Your task to perform on an android device: Go to Wikipedia Image 0: 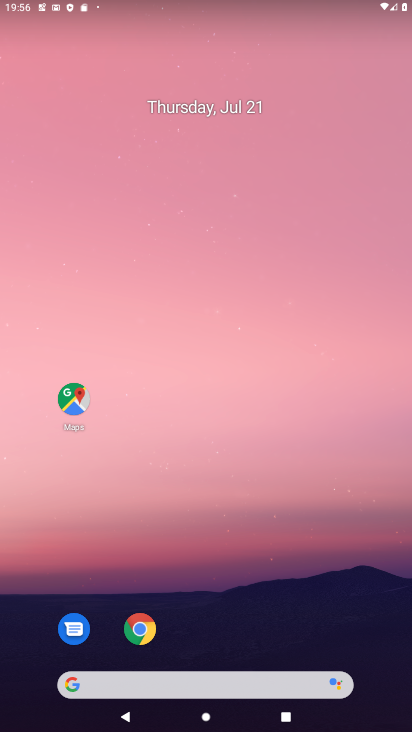
Step 0: click (153, 623)
Your task to perform on an android device: Go to Wikipedia Image 1: 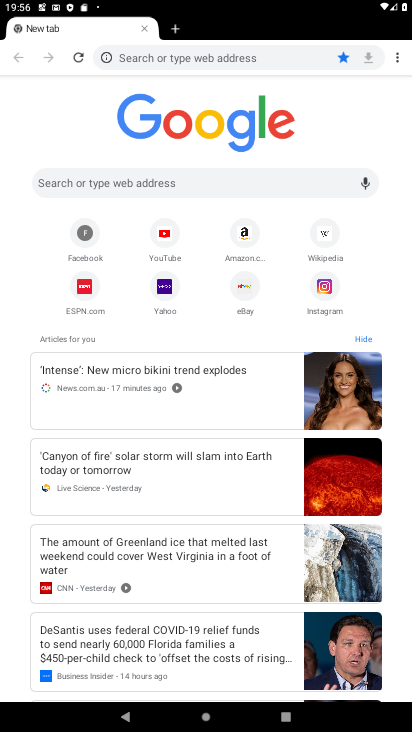
Step 1: click (326, 235)
Your task to perform on an android device: Go to Wikipedia Image 2: 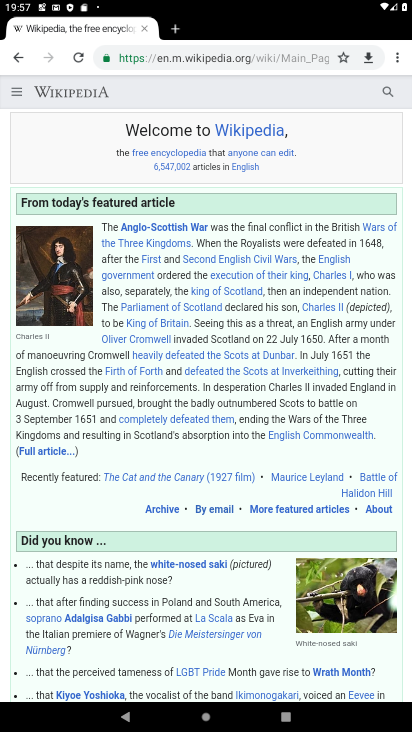
Step 2: task complete